Your task to perform on an android device: turn on the 12-hour format for clock Image 0: 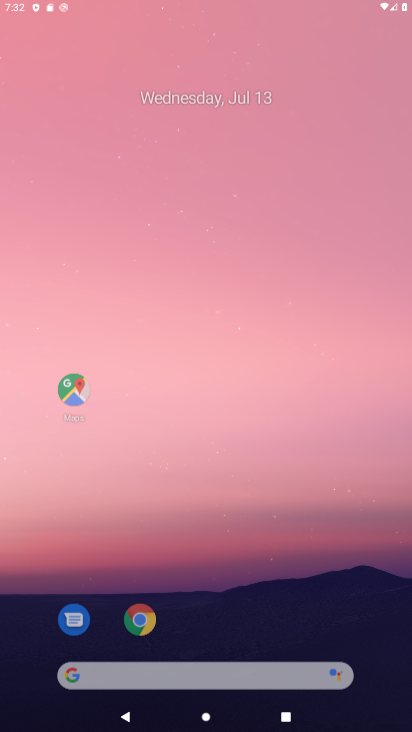
Step 0: drag from (150, 4) to (8, 250)
Your task to perform on an android device: turn on the 12-hour format for clock Image 1: 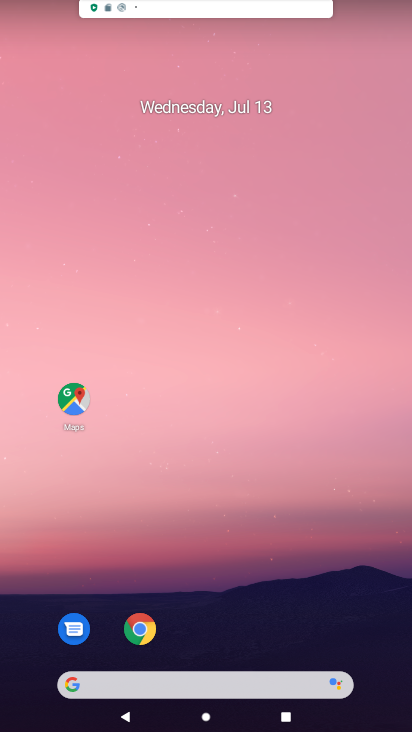
Step 1: drag from (330, 587) to (361, 79)
Your task to perform on an android device: turn on the 12-hour format for clock Image 2: 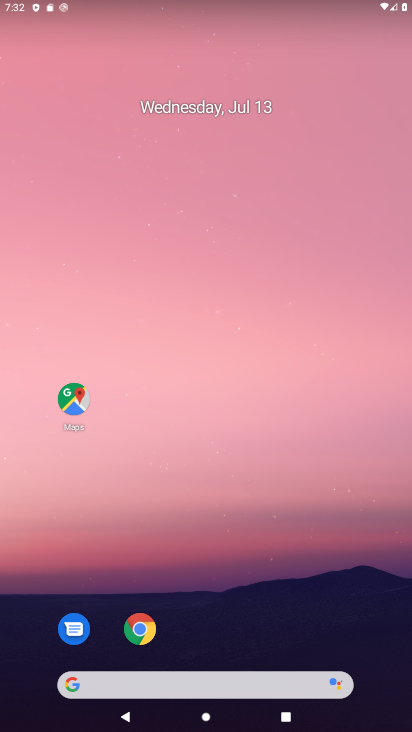
Step 2: drag from (249, 677) to (383, 38)
Your task to perform on an android device: turn on the 12-hour format for clock Image 3: 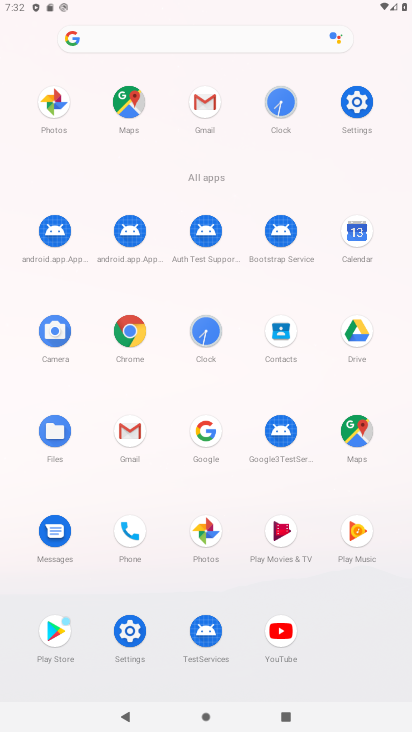
Step 3: click (209, 340)
Your task to perform on an android device: turn on the 12-hour format for clock Image 4: 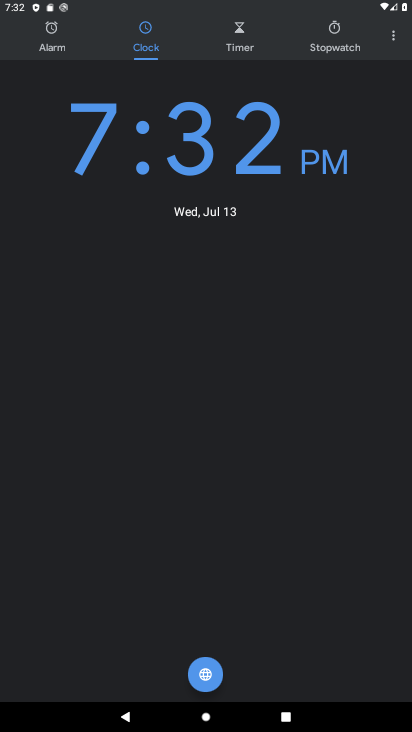
Step 4: click (398, 37)
Your task to perform on an android device: turn on the 12-hour format for clock Image 5: 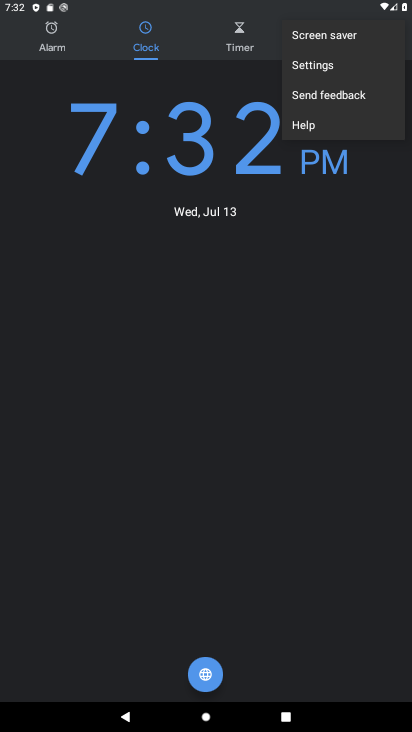
Step 5: click (313, 64)
Your task to perform on an android device: turn on the 12-hour format for clock Image 6: 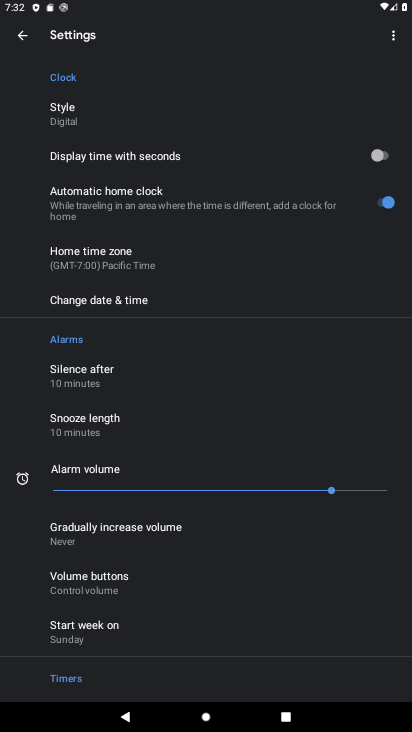
Step 6: click (105, 300)
Your task to perform on an android device: turn on the 12-hour format for clock Image 7: 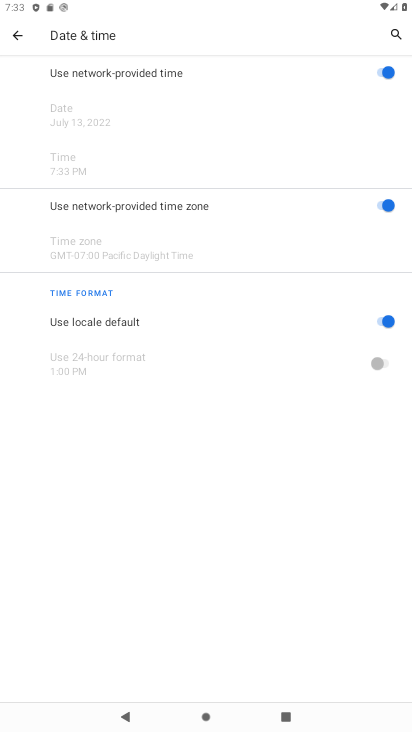
Step 7: task complete